Your task to perform on an android device: open the mobile data screen to see how much data has been used Image 0: 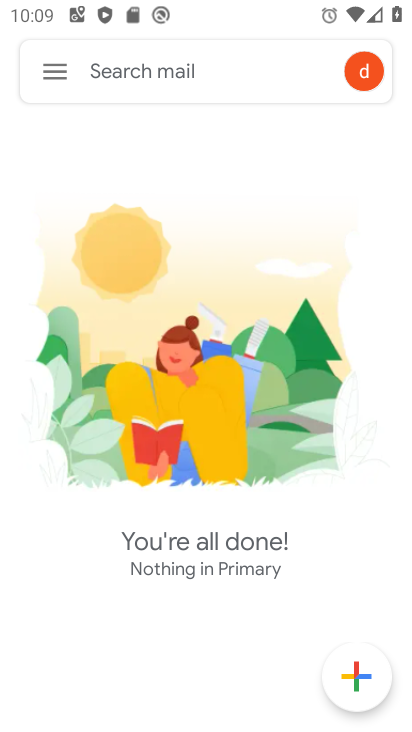
Step 0: press back button
Your task to perform on an android device: open the mobile data screen to see how much data has been used Image 1: 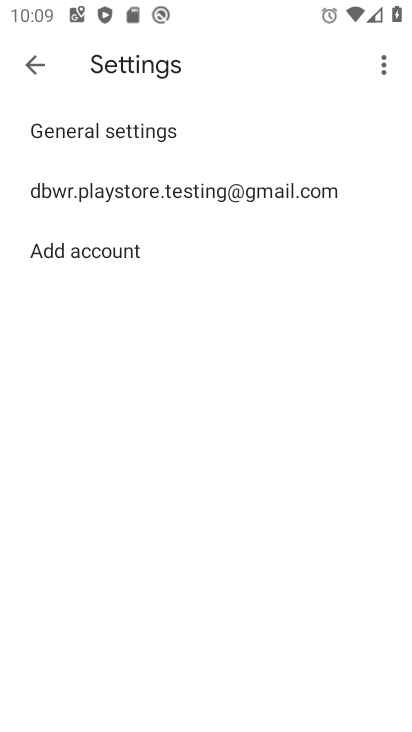
Step 1: press home button
Your task to perform on an android device: open the mobile data screen to see how much data has been used Image 2: 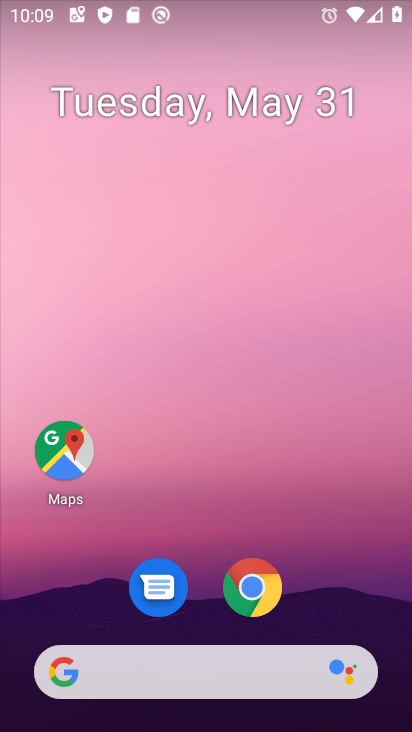
Step 2: drag from (347, 613) to (368, 219)
Your task to perform on an android device: open the mobile data screen to see how much data has been used Image 3: 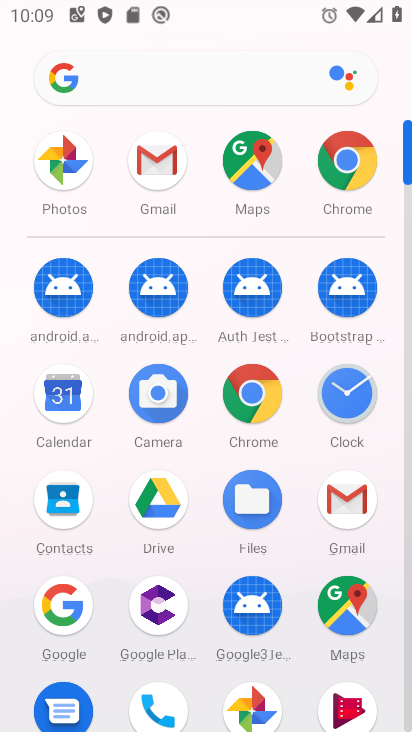
Step 3: drag from (294, 639) to (302, 338)
Your task to perform on an android device: open the mobile data screen to see how much data has been used Image 4: 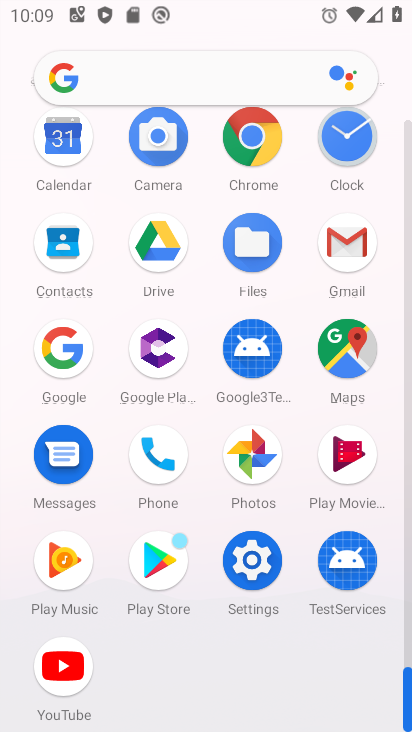
Step 4: click (274, 560)
Your task to perform on an android device: open the mobile data screen to see how much data has been used Image 5: 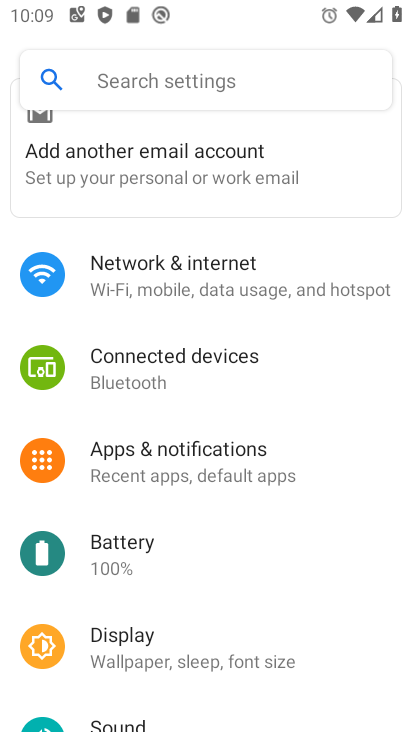
Step 5: click (291, 288)
Your task to perform on an android device: open the mobile data screen to see how much data has been used Image 6: 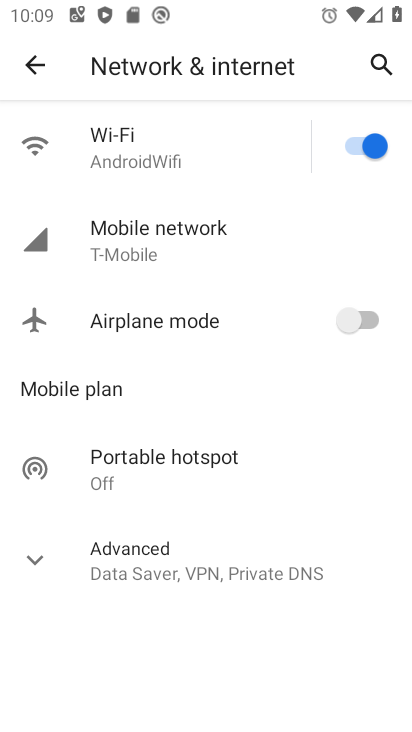
Step 6: click (249, 260)
Your task to perform on an android device: open the mobile data screen to see how much data has been used Image 7: 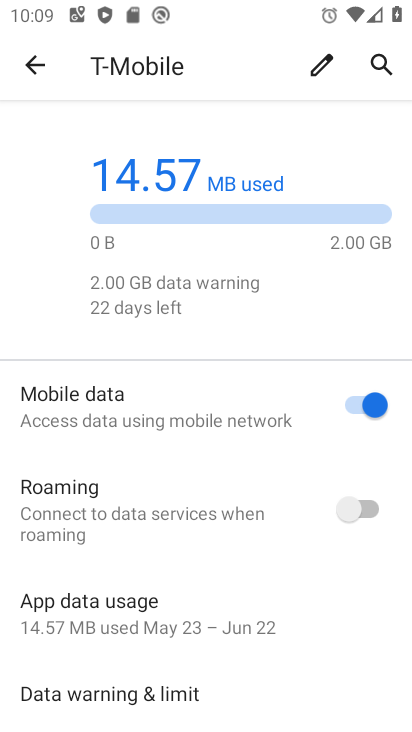
Step 7: click (258, 612)
Your task to perform on an android device: open the mobile data screen to see how much data has been used Image 8: 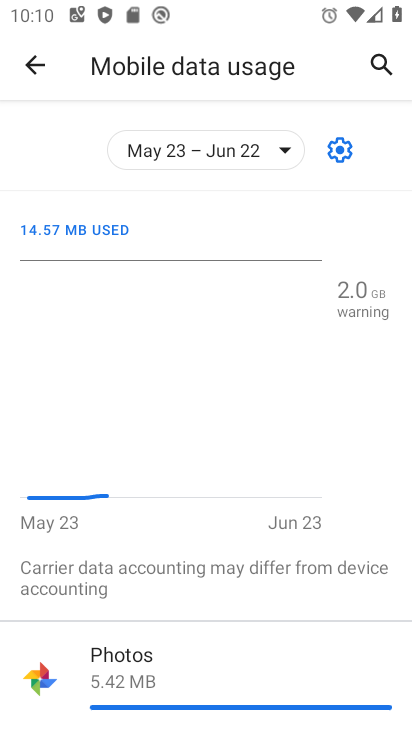
Step 8: task complete